Your task to perform on an android device: open app "Microsoft Excel" (install if not already installed) Image 0: 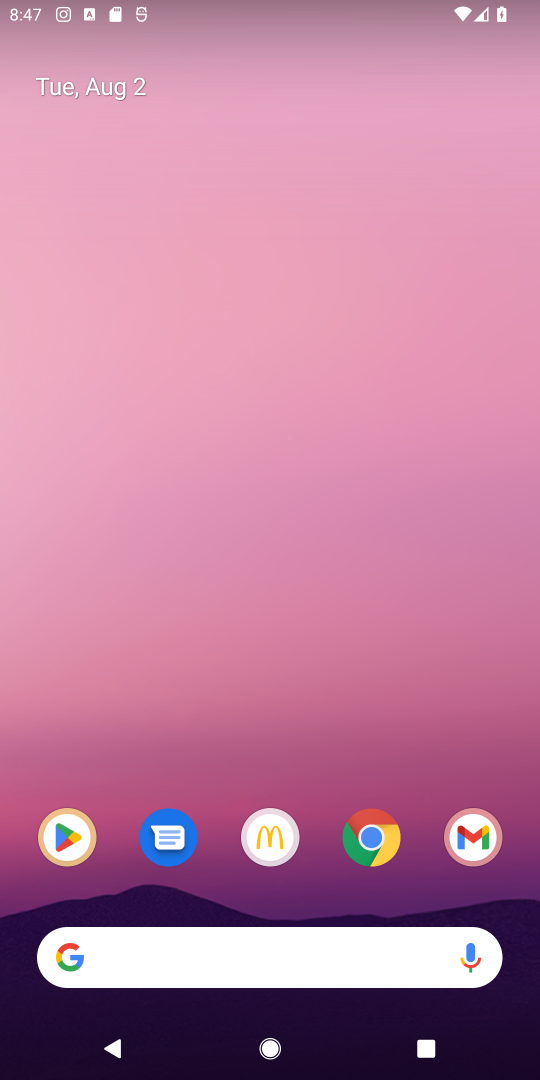
Step 0: click (66, 825)
Your task to perform on an android device: open app "Microsoft Excel" (install if not already installed) Image 1: 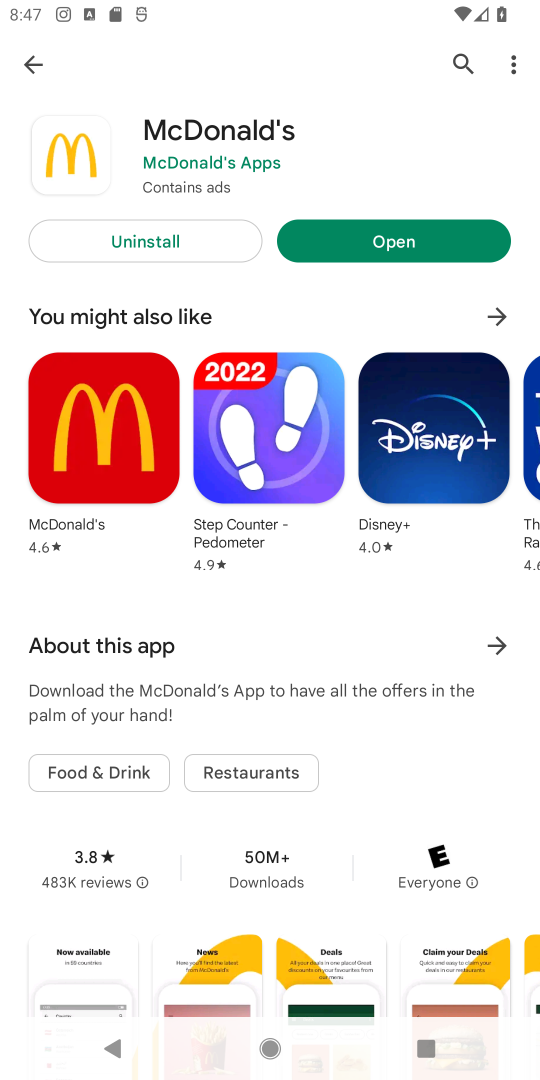
Step 1: click (513, 56)
Your task to perform on an android device: open app "Microsoft Excel" (install if not already installed) Image 2: 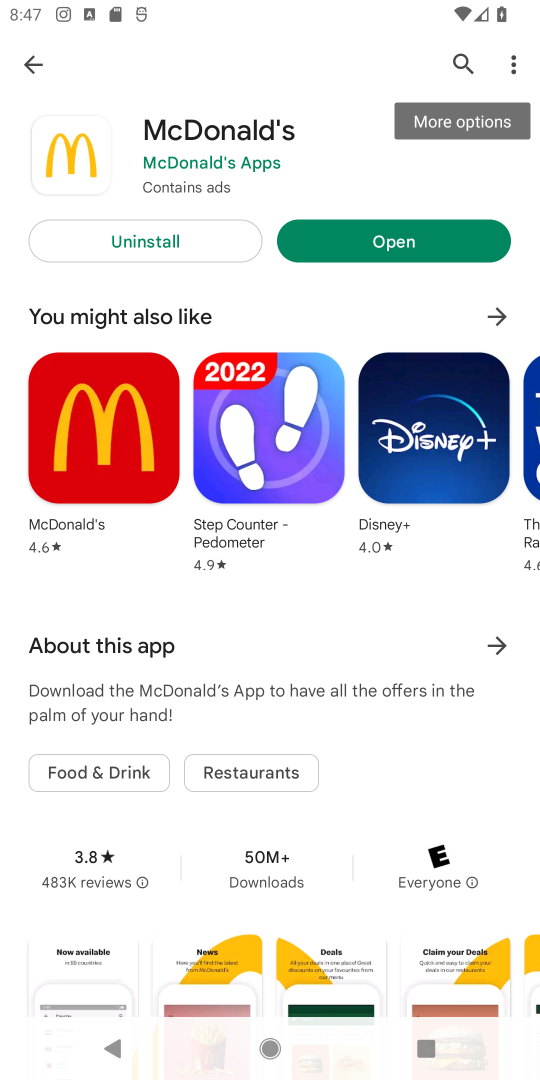
Step 2: click (462, 68)
Your task to perform on an android device: open app "Microsoft Excel" (install if not already installed) Image 3: 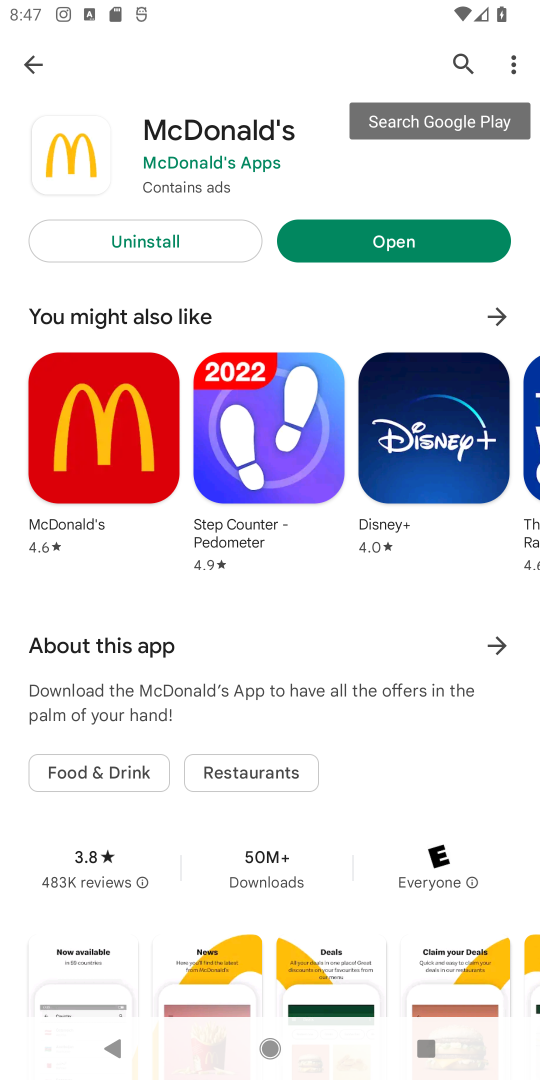
Step 3: click (462, 57)
Your task to perform on an android device: open app "Microsoft Excel" (install if not already installed) Image 4: 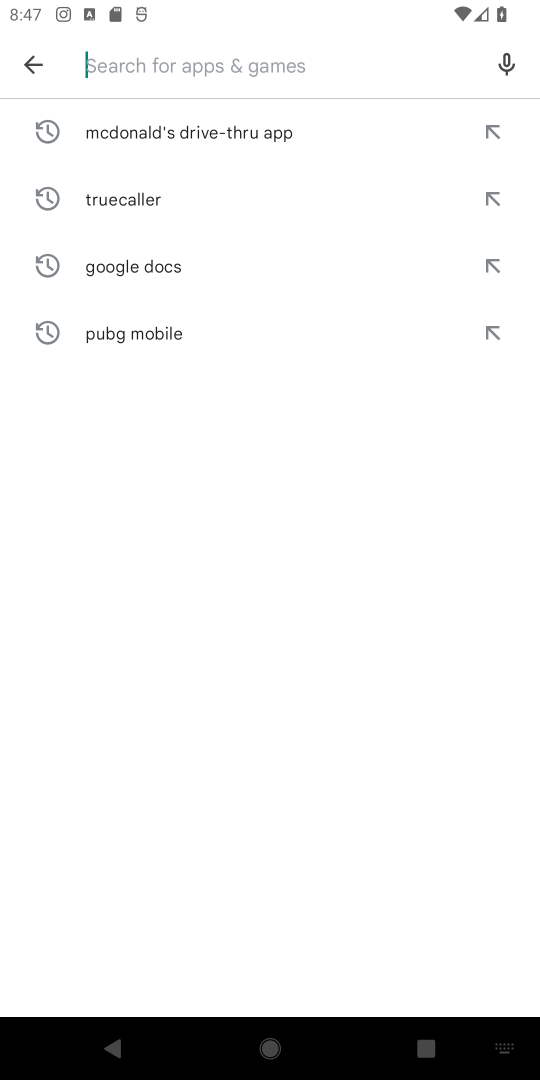
Step 4: type "Microsoft Excel"
Your task to perform on an android device: open app "Microsoft Excel" (install if not already installed) Image 5: 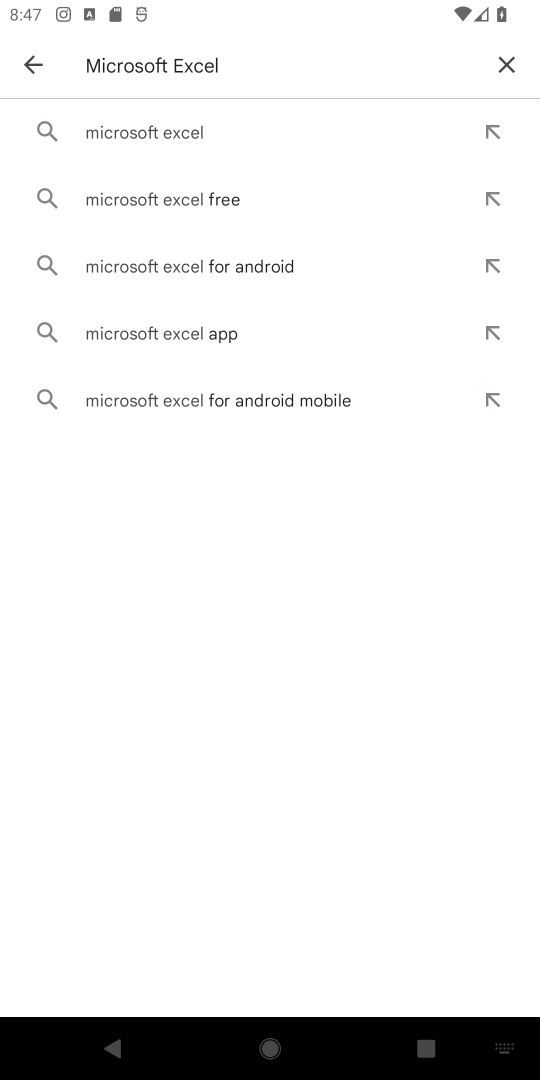
Step 5: click (133, 141)
Your task to perform on an android device: open app "Microsoft Excel" (install if not already installed) Image 6: 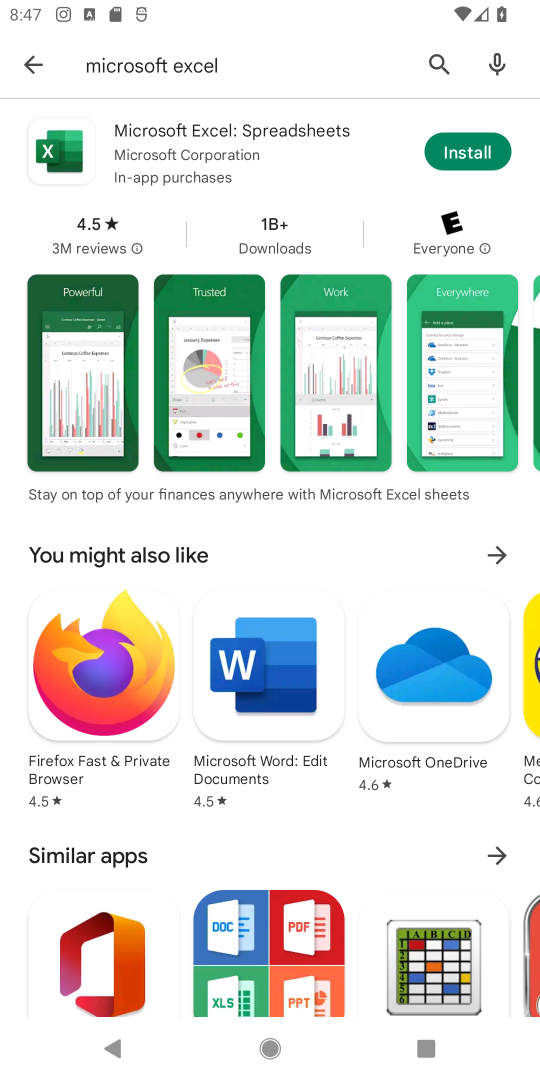
Step 6: click (478, 155)
Your task to perform on an android device: open app "Microsoft Excel" (install if not already installed) Image 7: 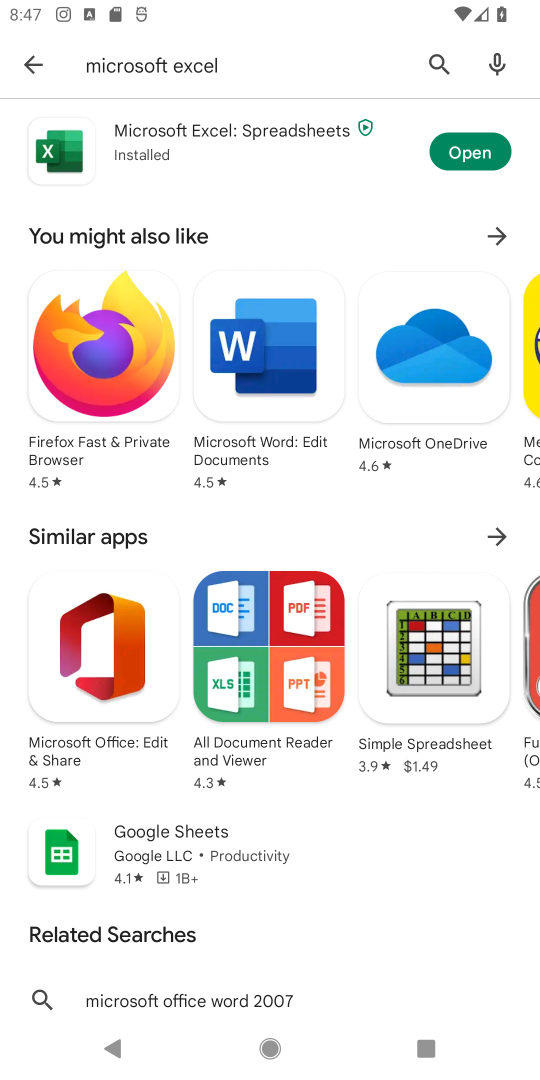
Step 7: click (471, 158)
Your task to perform on an android device: open app "Microsoft Excel" (install if not already installed) Image 8: 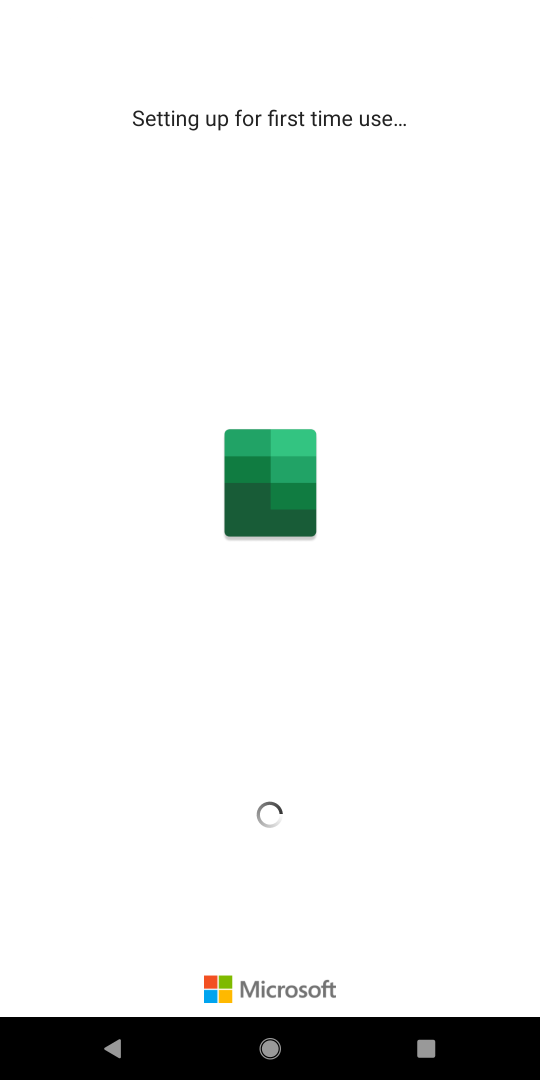
Step 8: task complete